Your task to perform on an android device: move a message to another label in the gmail app Image 0: 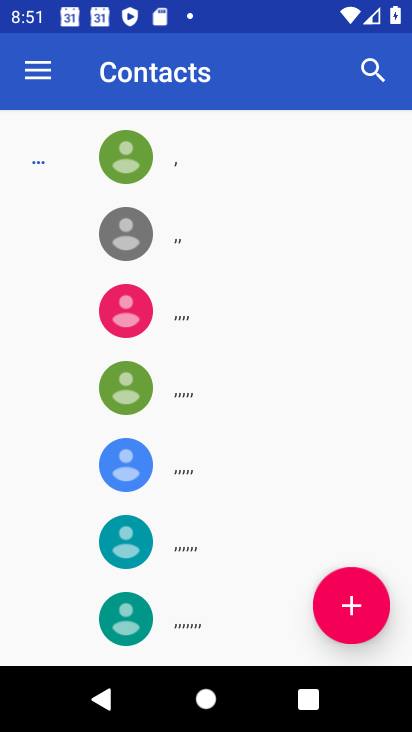
Step 0: press back button
Your task to perform on an android device: move a message to another label in the gmail app Image 1: 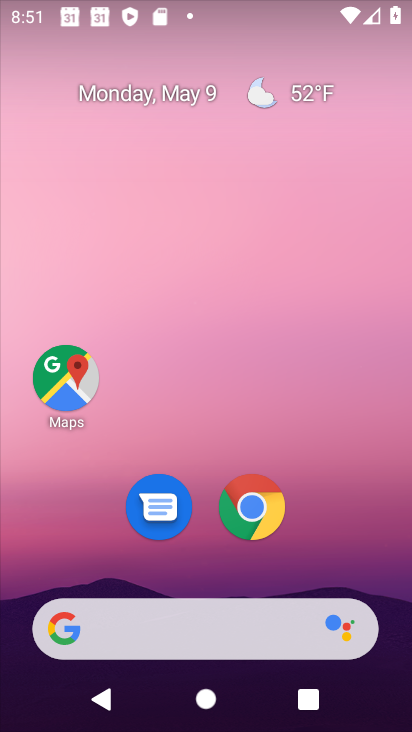
Step 1: drag from (306, 539) to (208, 90)
Your task to perform on an android device: move a message to another label in the gmail app Image 2: 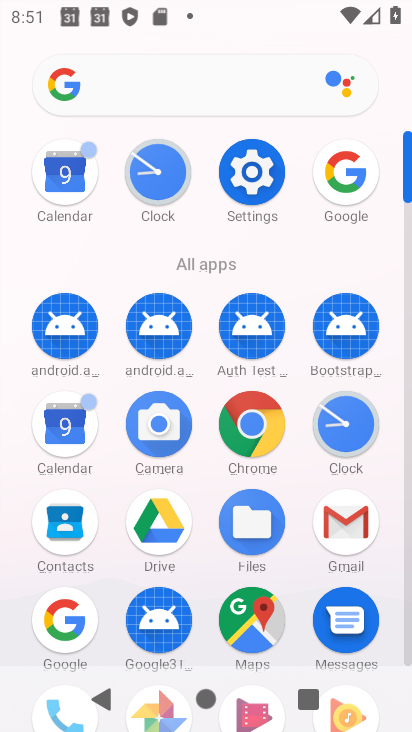
Step 2: click (344, 521)
Your task to perform on an android device: move a message to another label in the gmail app Image 3: 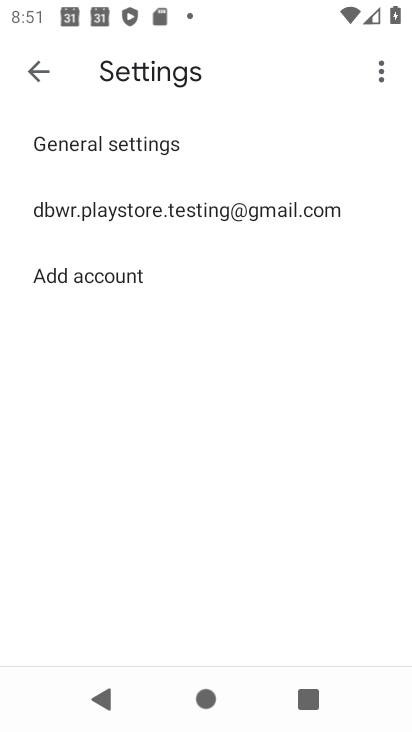
Step 3: press back button
Your task to perform on an android device: move a message to another label in the gmail app Image 4: 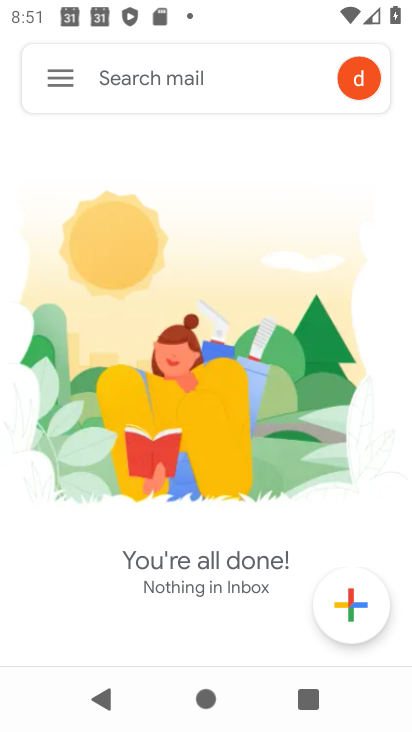
Step 4: click (65, 74)
Your task to perform on an android device: move a message to another label in the gmail app Image 5: 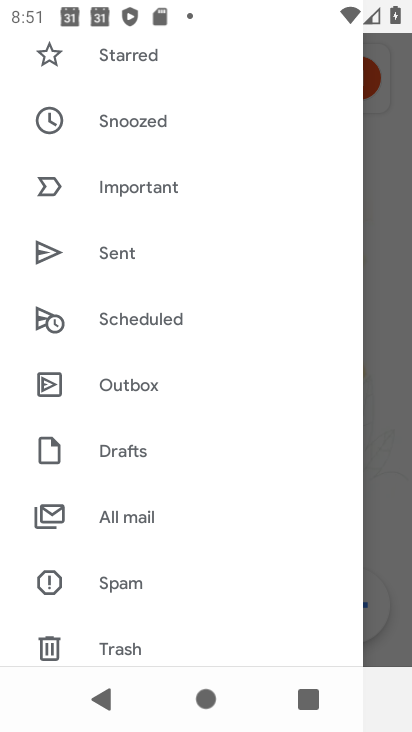
Step 5: click (137, 518)
Your task to perform on an android device: move a message to another label in the gmail app Image 6: 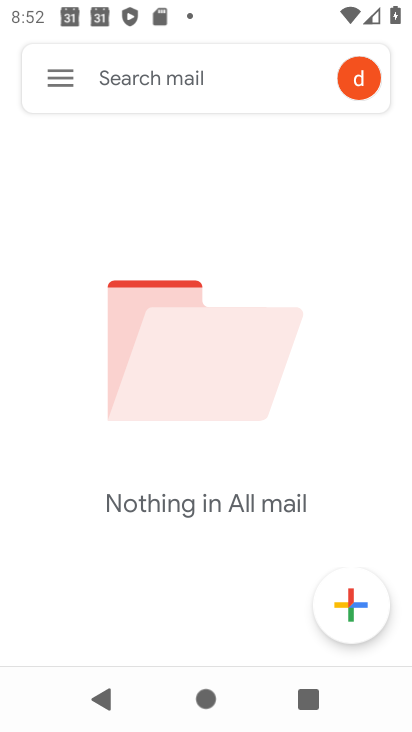
Step 6: click (51, 80)
Your task to perform on an android device: move a message to another label in the gmail app Image 7: 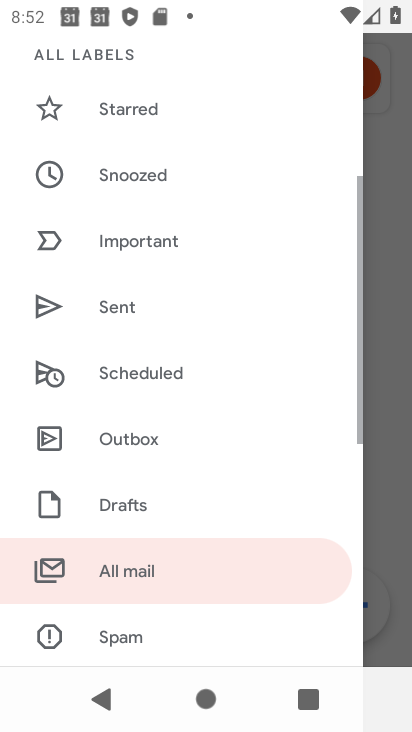
Step 7: drag from (119, 170) to (163, 295)
Your task to perform on an android device: move a message to another label in the gmail app Image 8: 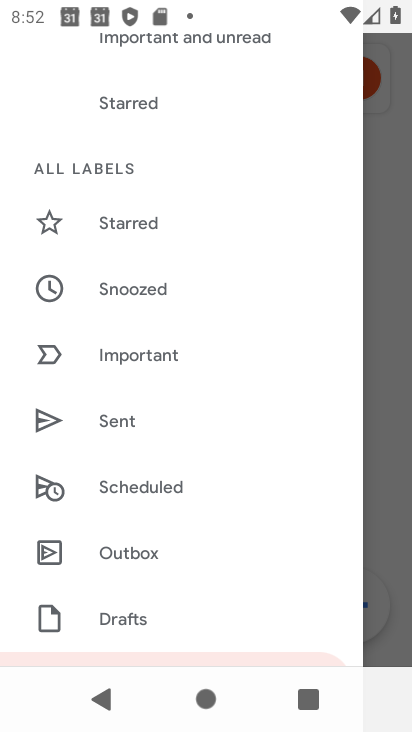
Step 8: drag from (128, 169) to (170, 312)
Your task to perform on an android device: move a message to another label in the gmail app Image 9: 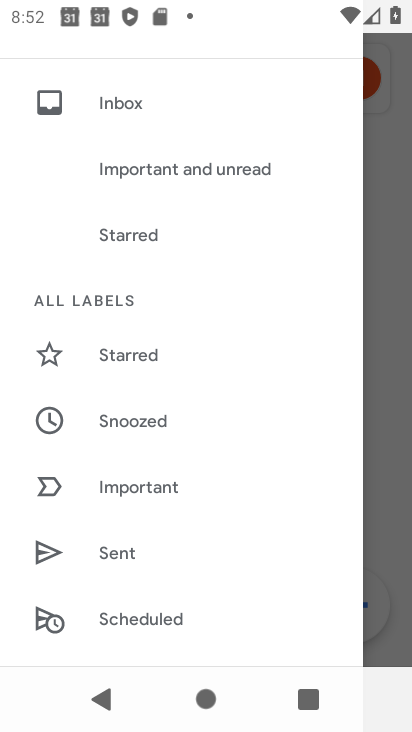
Step 9: click (95, 95)
Your task to perform on an android device: move a message to another label in the gmail app Image 10: 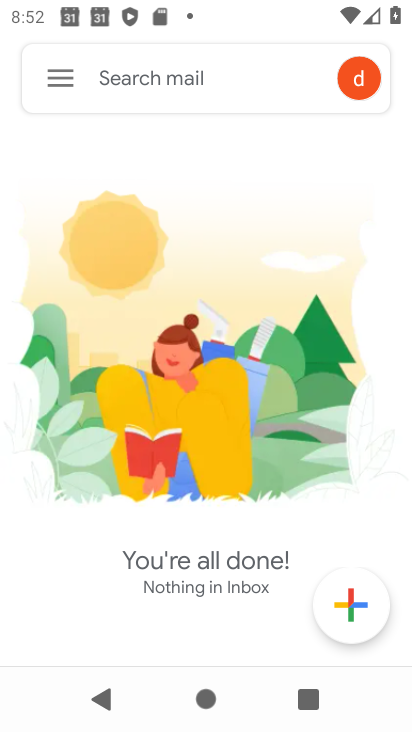
Step 10: task complete